Your task to perform on an android device: check data usage Image 0: 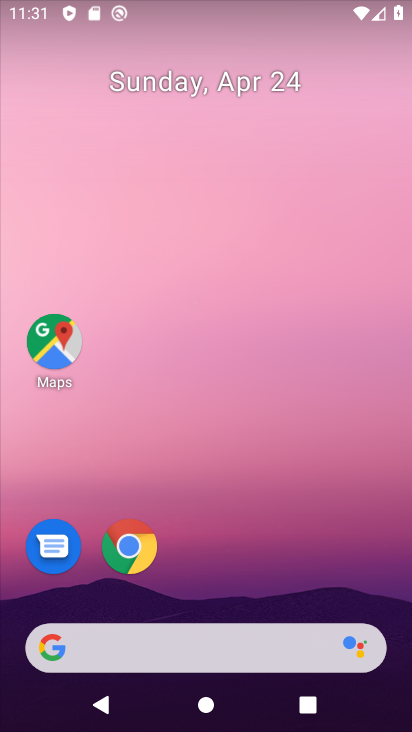
Step 0: drag from (209, 565) to (213, 229)
Your task to perform on an android device: check data usage Image 1: 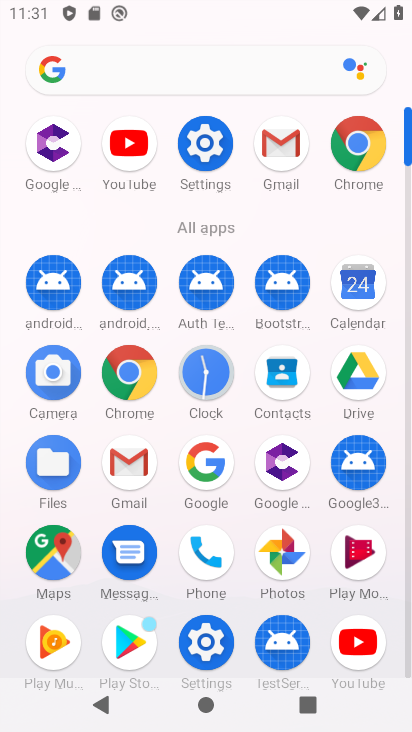
Step 1: click (191, 113)
Your task to perform on an android device: check data usage Image 2: 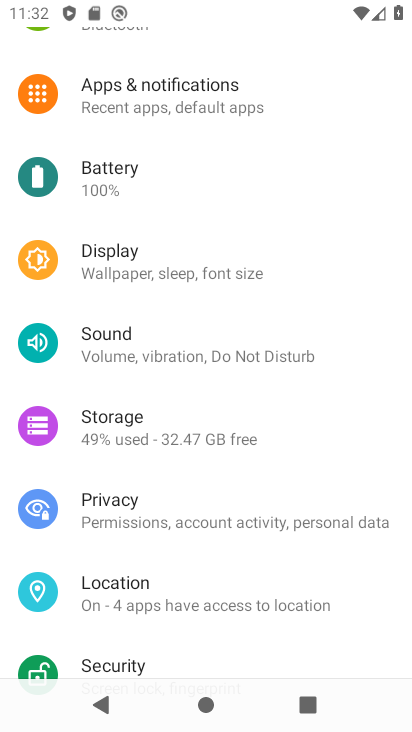
Step 2: drag from (211, 246) to (218, 466)
Your task to perform on an android device: check data usage Image 3: 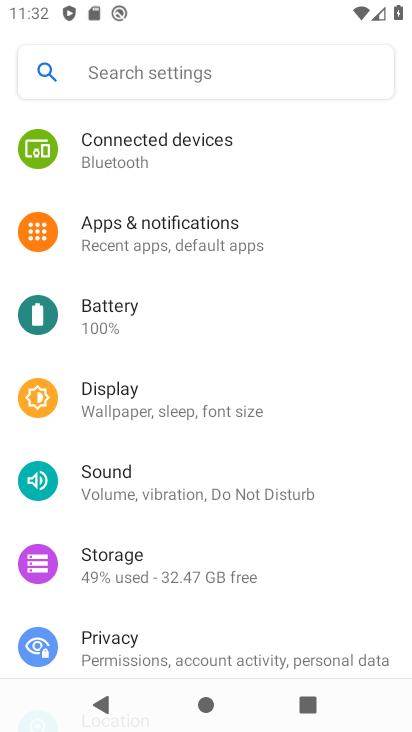
Step 3: drag from (215, 350) to (246, 546)
Your task to perform on an android device: check data usage Image 4: 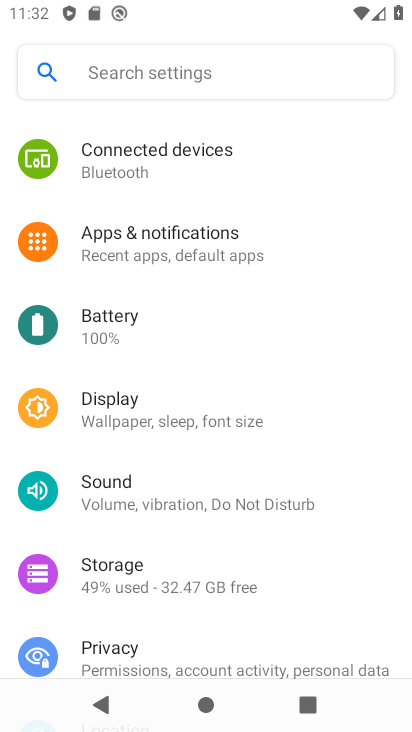
Step 4: drag from (205, 222) to (226, 522)
Your task to perform on an android device: check data usage Image 5: 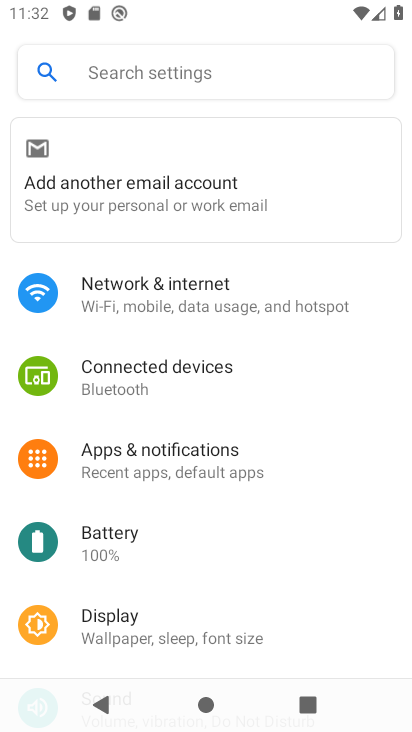
Step 5: click (190, 307)
Your task to perform on an android device: check data usage Image 6: 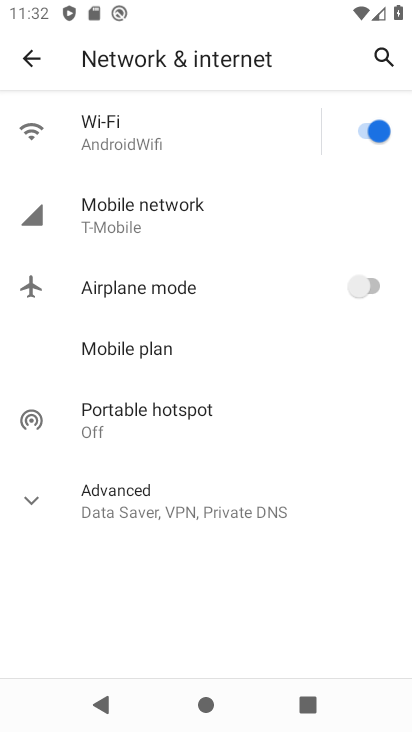
Step 6: click (139, 218)
Your task to perform on an android device: check data usage Image 7: 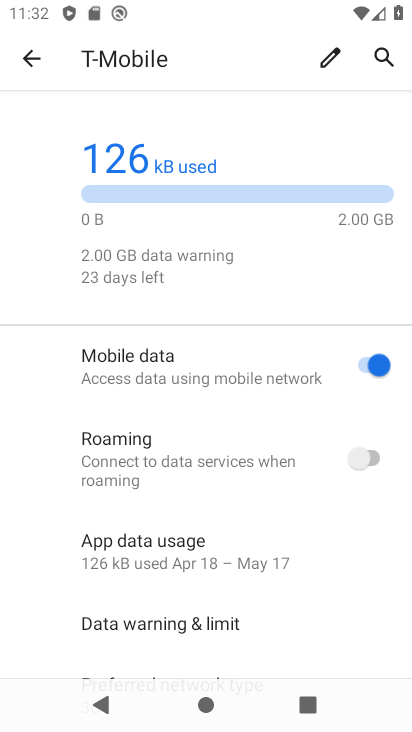
Step 7: drag from (235, 568) to (254, 433)
Your task to perform on an android device: check data usage Image 8: 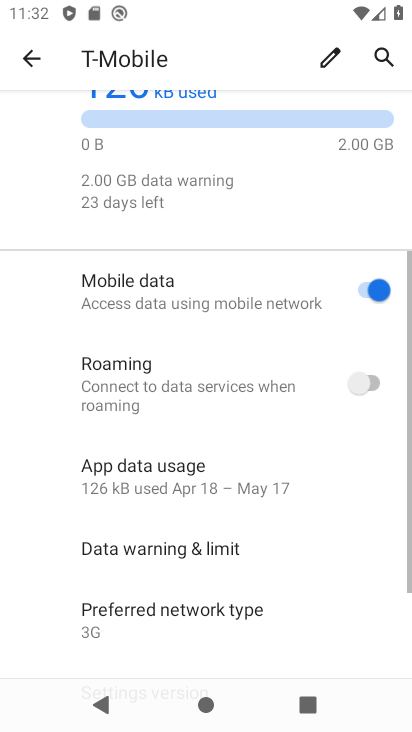
Step 8: click (208, 470)
Your task to perform on an android device: check data usage Image 9: 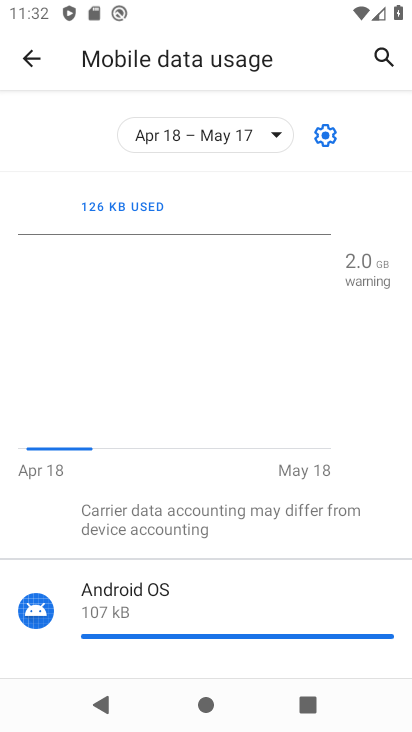
Step 9: task complete